Your task to perform on an android device: Show me productivity apps on the Play Store Image 0: 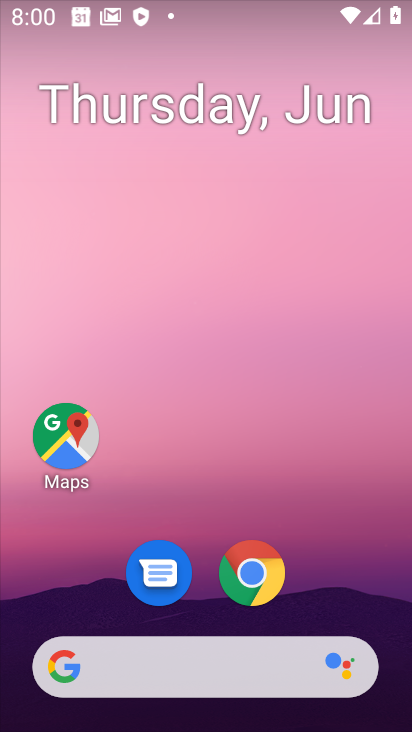
Step 0: drag from (274, 627) to (303, 133)
Your task to perform on an android device: Show me productivity apps on the Play Store Image 1: 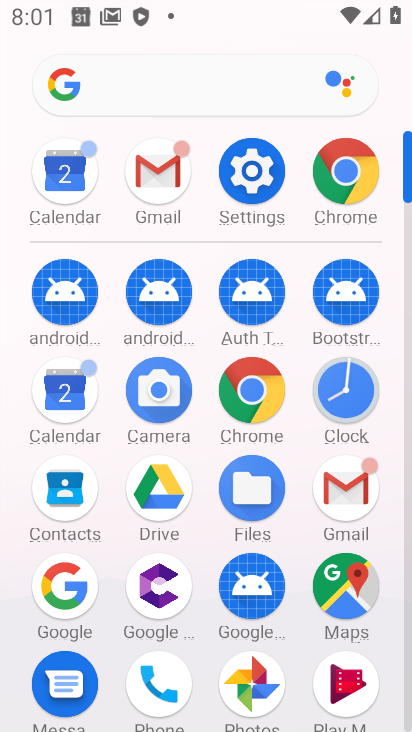
Step 1: press home button
Your task to perform on an android device: Show me productivity apps on the Play Store Image 2: 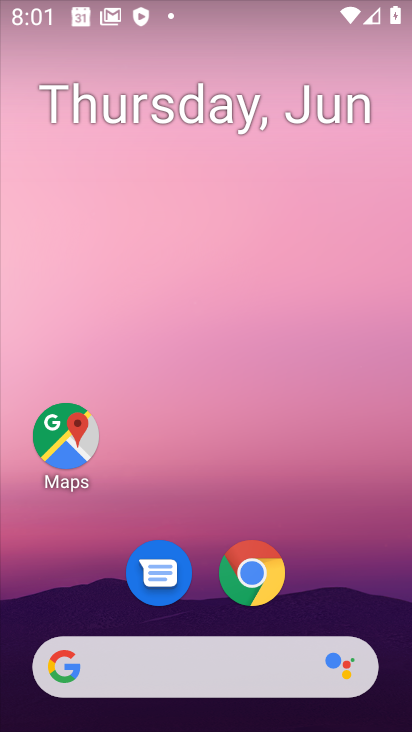
Step 2: drag from (210, 623) to (205, 207)
Your task to perform on an android device: Show me productivity apps on the Play Store Image 3: 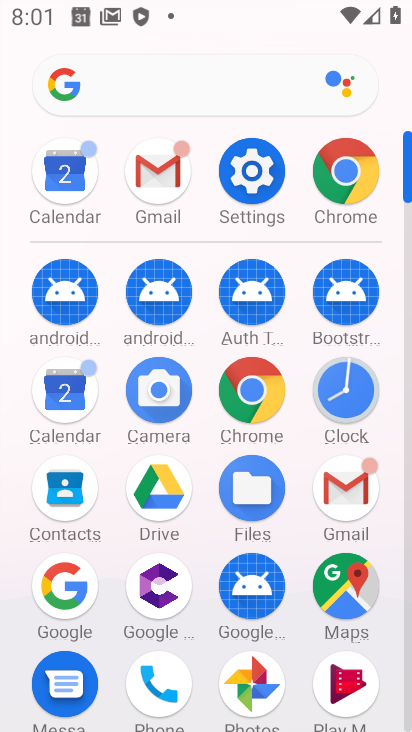
Step 3: drag from (108, 517) to (108, 304)
Your task to perform on an android device: Show me productivity apps on the Play Store Image 4: 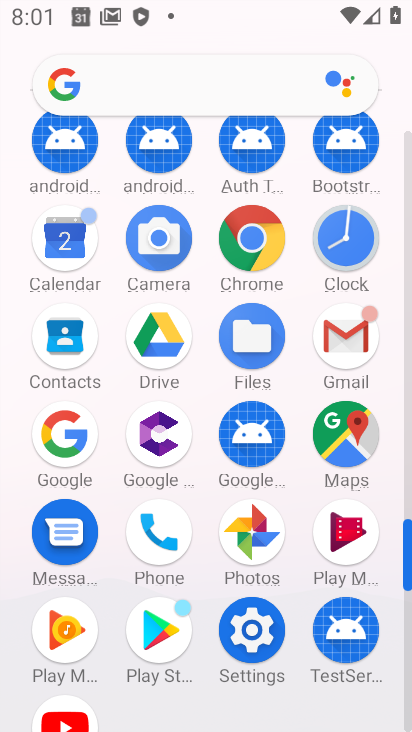
Step 4: click (139, 621)
Your task to perform on an android device: Show me productivity apps on the Play Store Image 5: 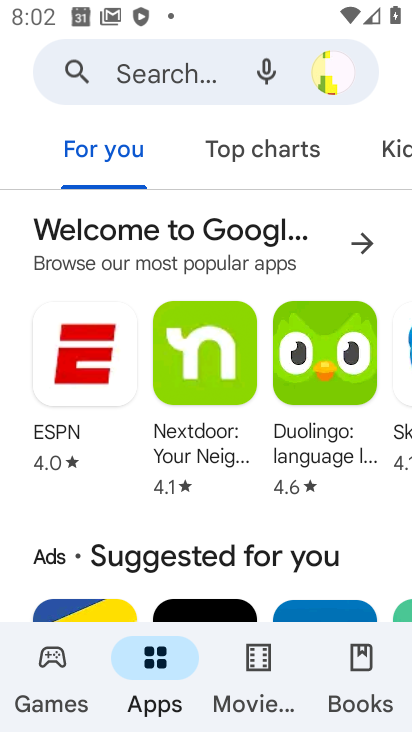
Step 5: task complete